Your task to perform on an android device: Go to internet settings Image 0: 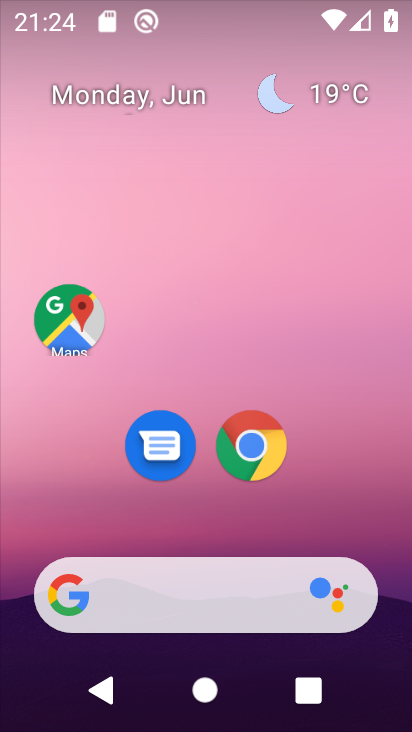
Step 0: press home button
Your task to perform on an android device: Go to internet settings Image 1: 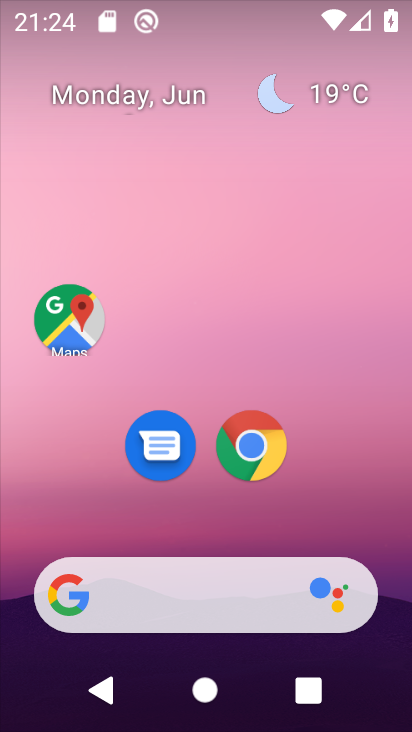
Step 1: drag from (203, 526) to (221, 6)
Your task to perform on an android device: Go to internet settings Image 2: 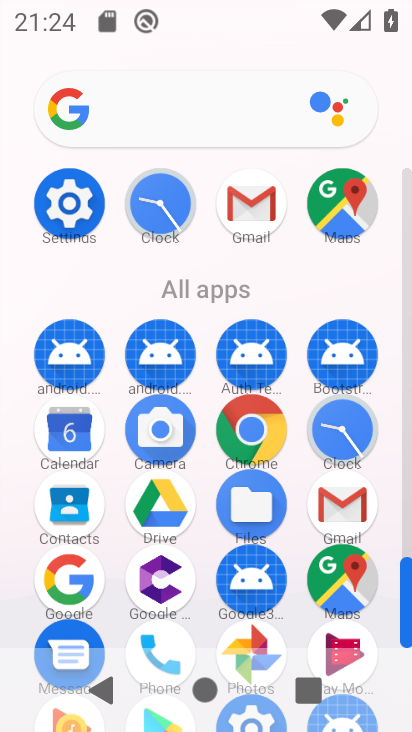
Step 2: click (68, 199)
Your task to perform on an android device: Go to internet settings Image 3: 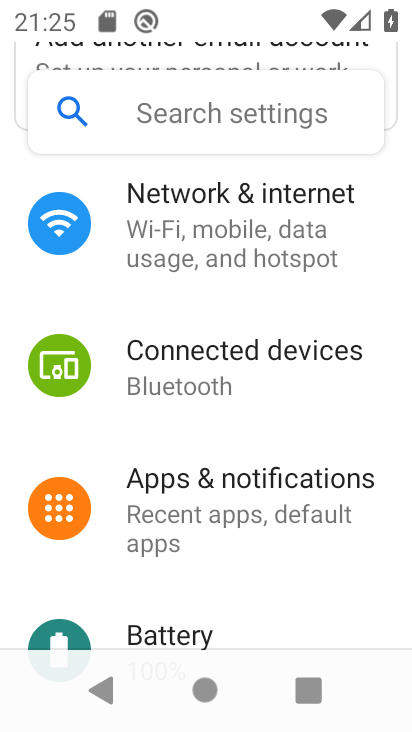
Step 3: click (203, 210)
Your task to perform on an android device: Go to internet settings Image 4: 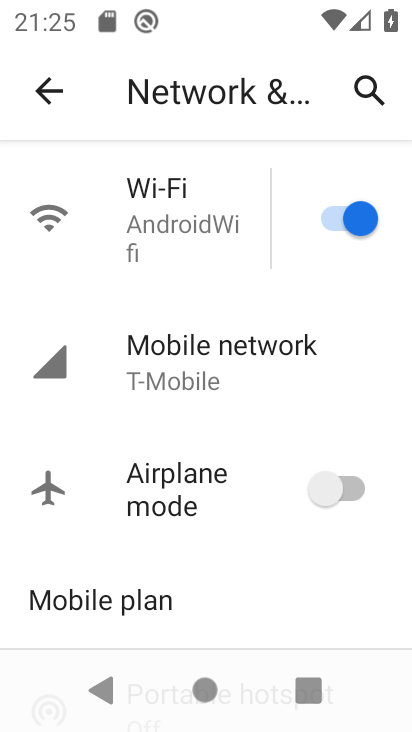
Step 4: drag from (187, 561) to (201, 238)
Your task to perform on an android device: Go to internet settings Image 5: 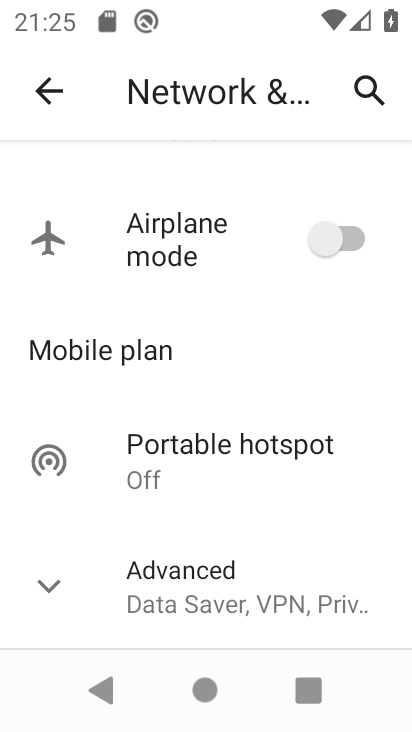
Step 5: click (47, 582)
Your task to perform on an android device: Go to internet settings Image 6: 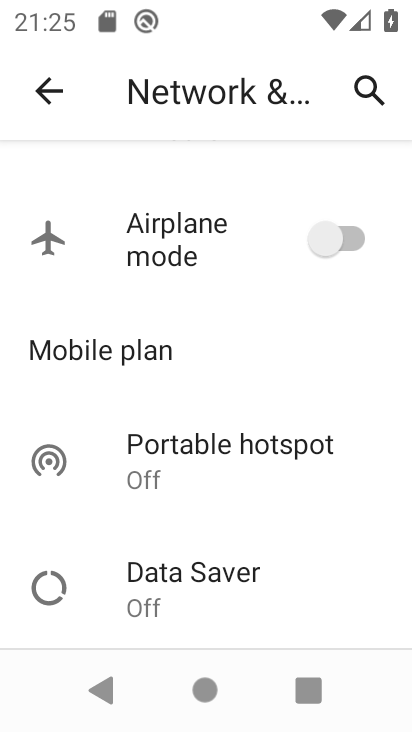
Step 6: task complete